Your task to perform on an android device: turn on airplane mode Image 0: 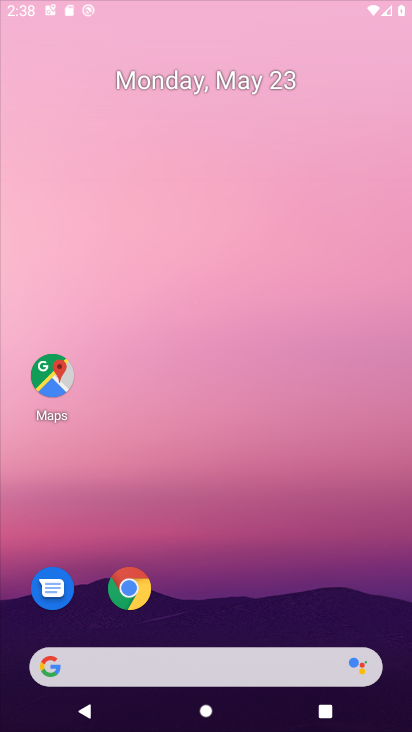
Step 0: drag from (193, 579) to (191, 41)
Your task to perform on an android device: turn on airplane mode Image 1: 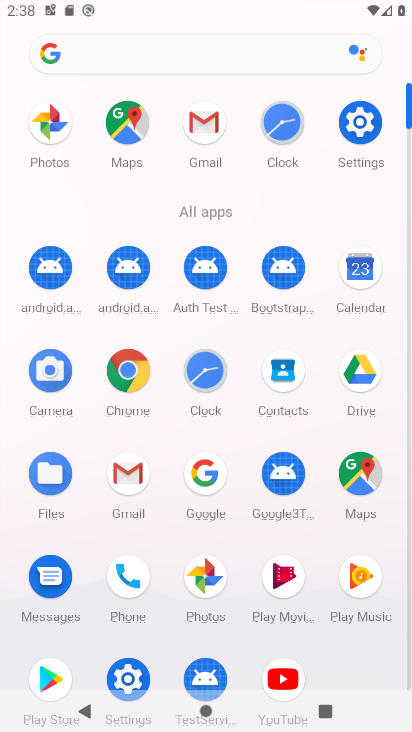
Step 1: click (364, 128)
Your task to perform on an android device: turn on airplane mode Image 2: 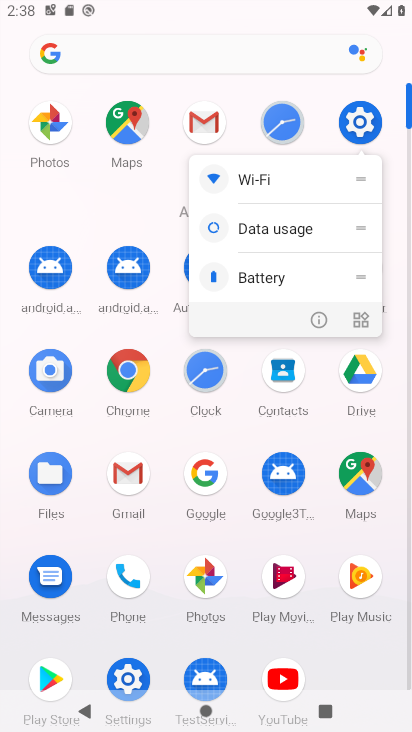
Step 2: click (315, 315)
Your task to perform on an android device: turn on airplane mode Image 3: 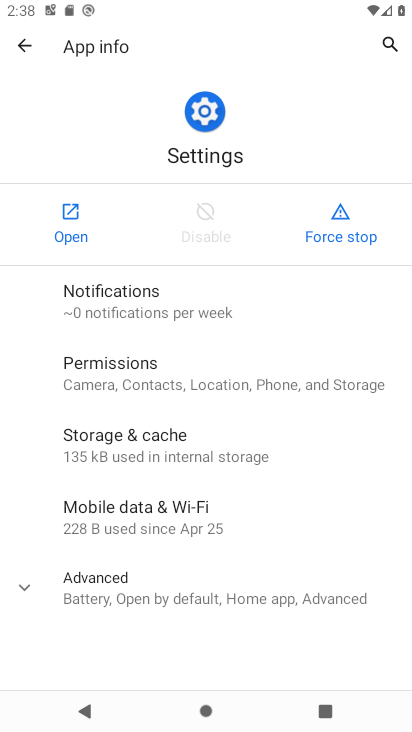
Step 3: click (58, 217)
Your task to perform on an android device: turn on airplane mode Image 4: 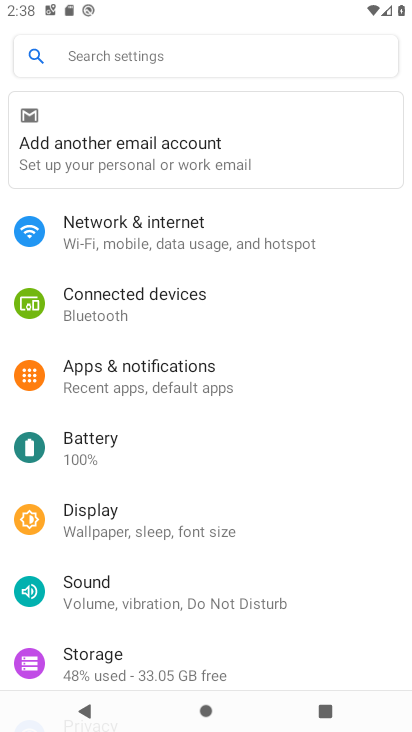
Step 4: click (181, 263)
Your task to perform on an android device: turn on airplane mode Image 5: 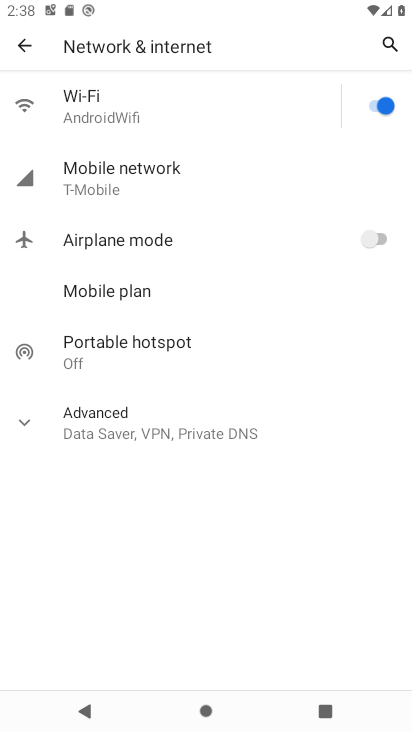
Step 5: click (155, 233)
Your task to perform on an android device: turn on airplane mode Image 6: 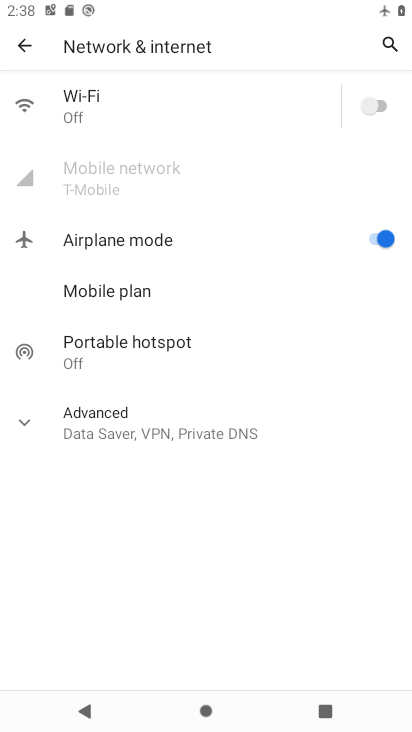
Step 6: task complete